Your task to perform on an android device: uninstall "Expedia: Hotels, Flights & Car" Image 0: 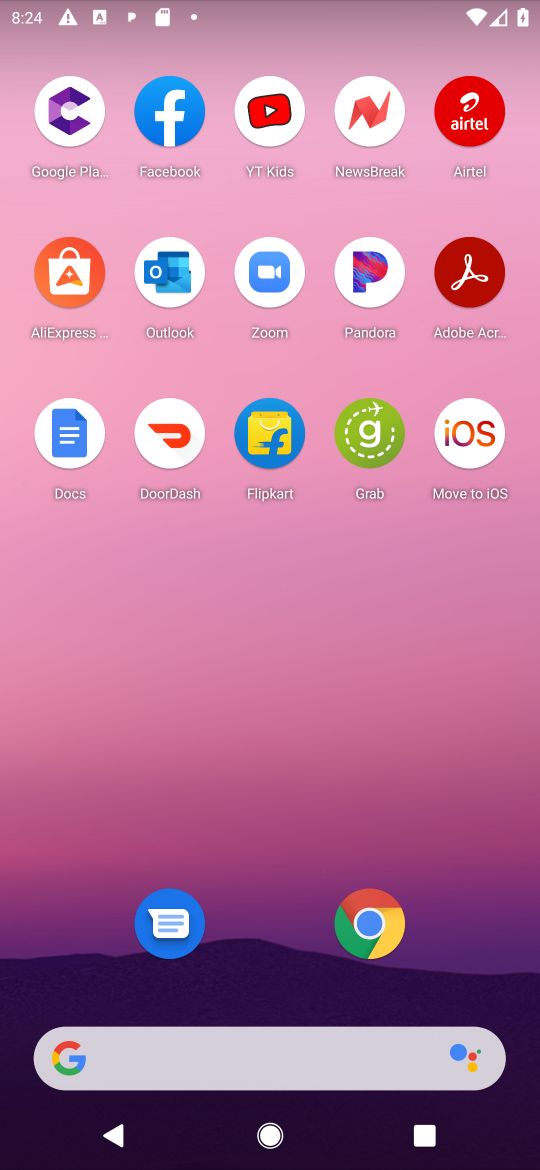
Step 0: press home button
Your task to perform on an android device: uninstall "Expedia: Hotels, Flights & Car" Image 1: 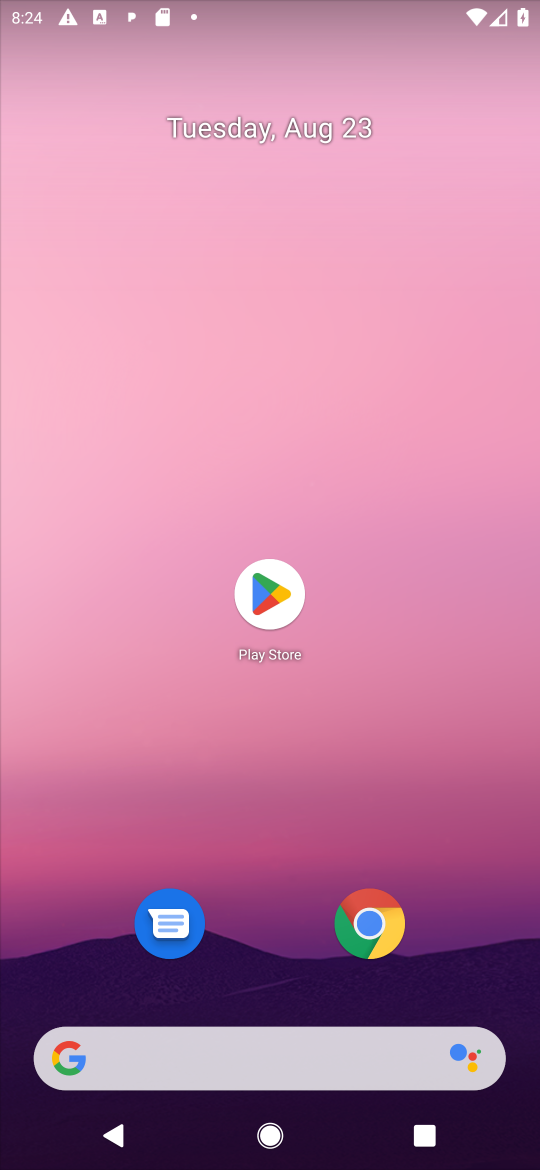
Step 1: click (264, 594)
Your task to perform on an android device: uninstall "Expedia: Hotels, Flights & Car" Image 2: 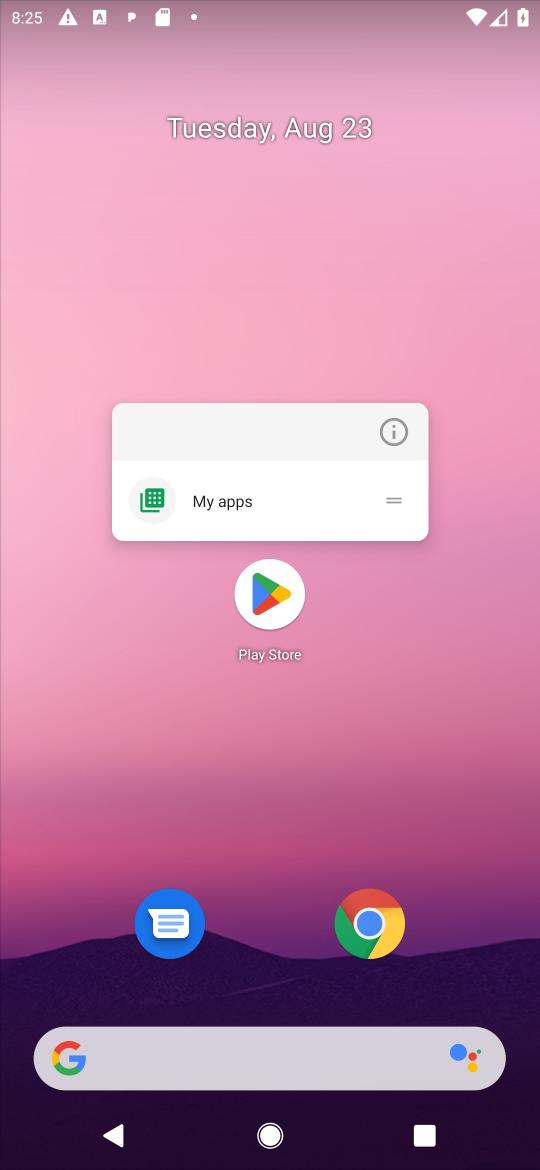
Step 2: click (270, 596)
Your task to perform on an android device: uninstall "Expedia: Hotels, Flights & Car" Image 3: 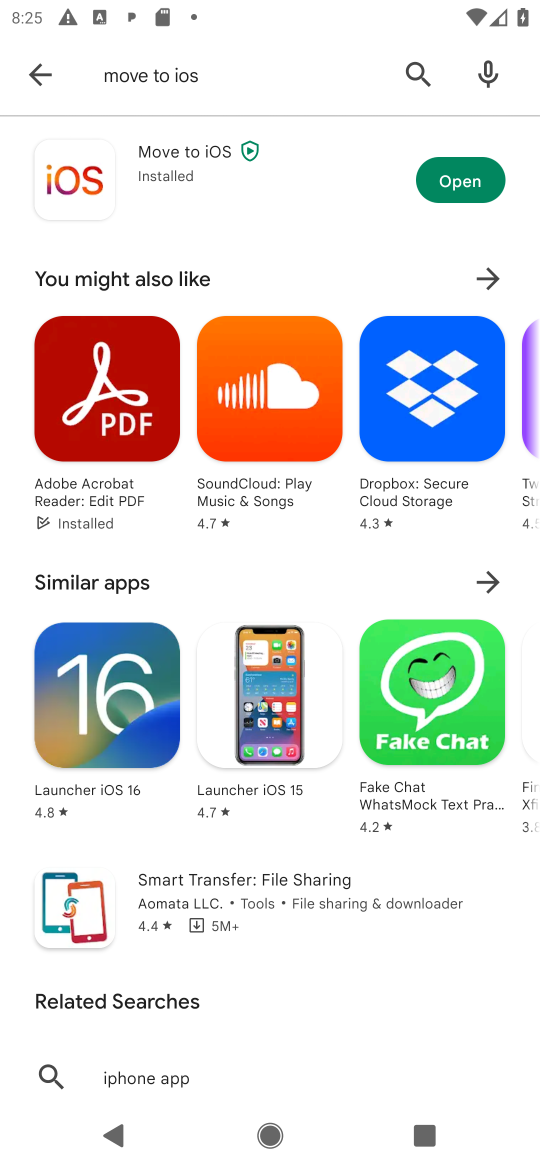
Step 3: click (414, 66)
Your task to perform on an android device: uninstall "Expedia: Hotels, Flights & Car" Image 4: 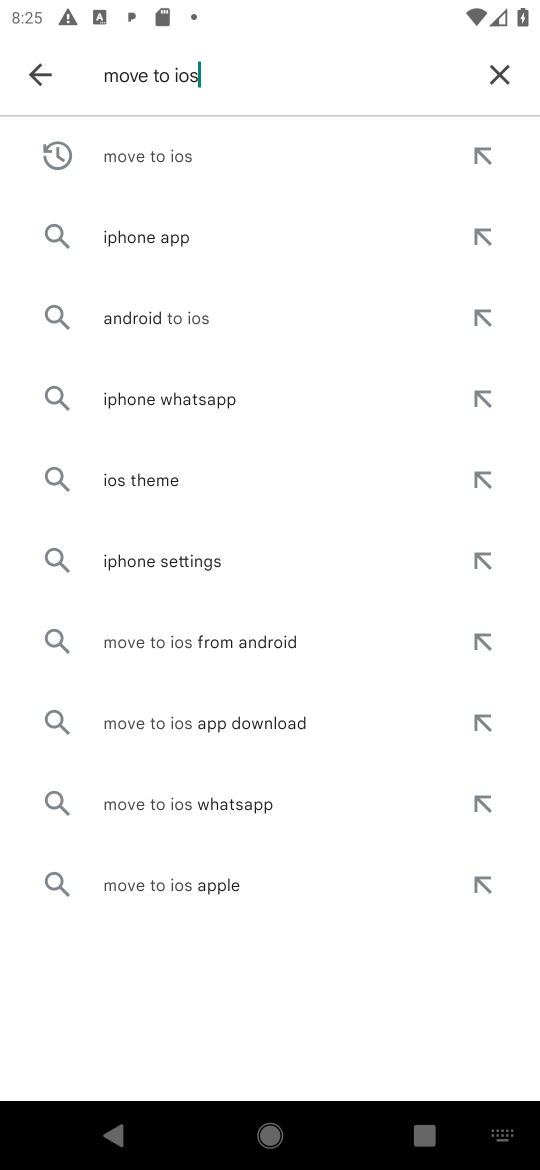
Step 4: click (500, 72)
Your task to perform on an android device: uninstall "Expedia: Hotels, Flights & Car" Image 5: 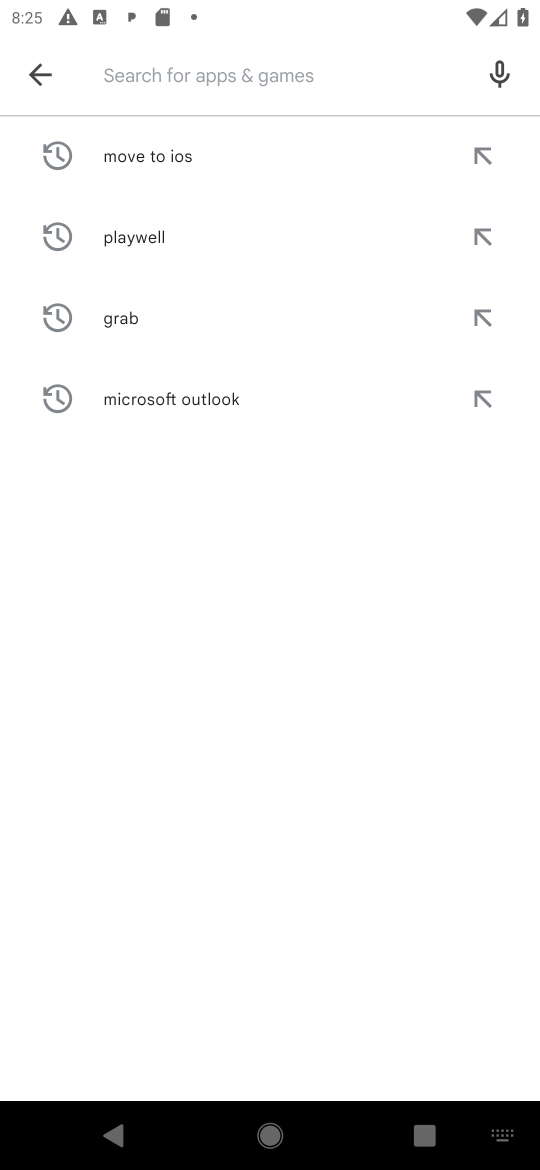
Step 5: type "Expedia: Hotels, Flights & Car"
Your task to perform on an android device: uninstall "Expedia: Hotels, Flights & Car" Image 6: 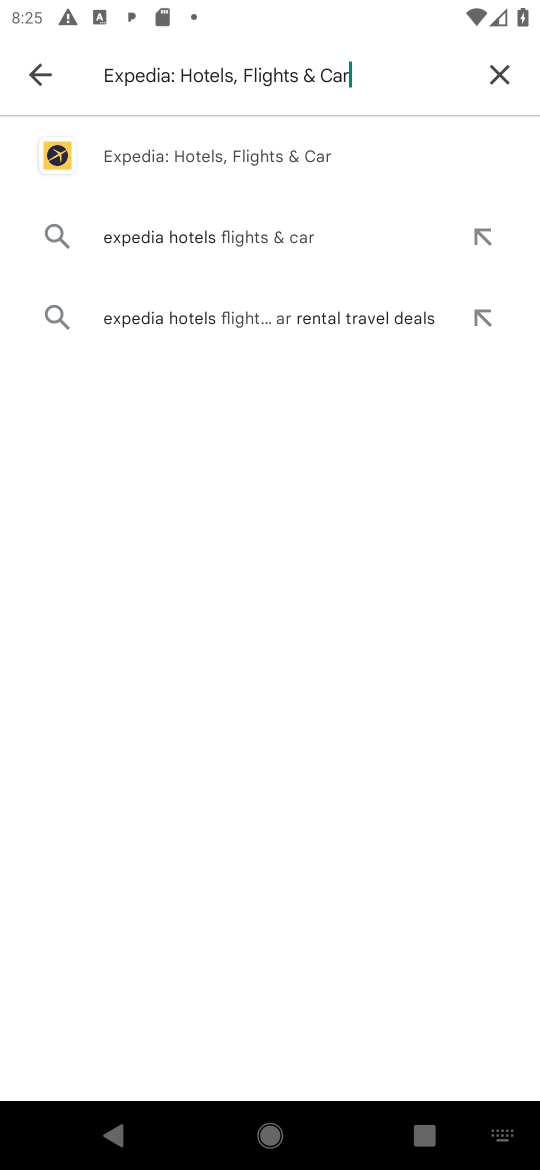
Step 6: click (182, 156)
Your task to perform on an android device: uninstall "Expedia: Hotels, Flights & Car" Image 7: 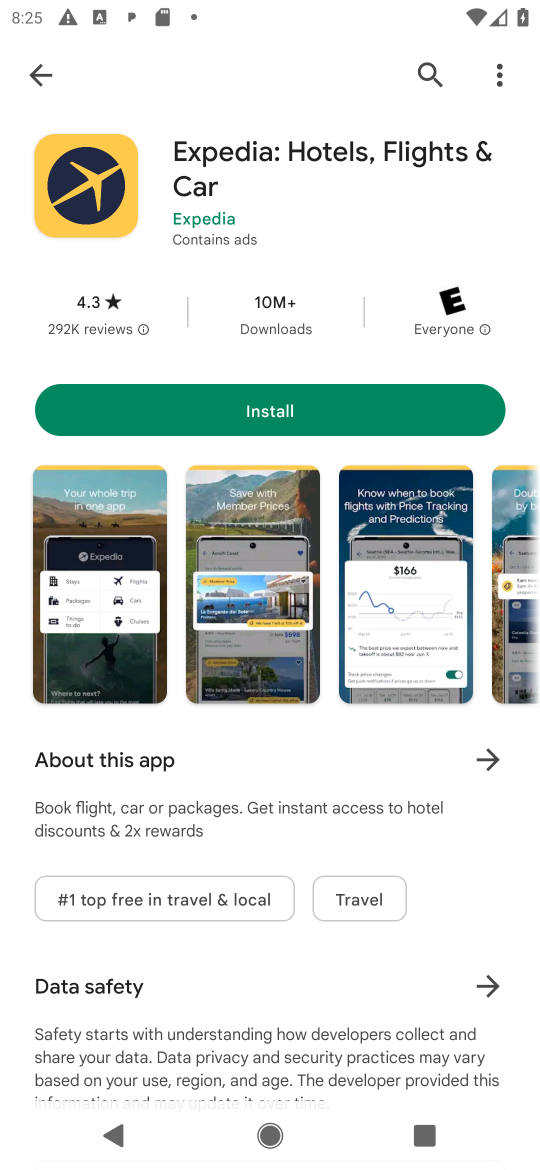
Step 7: task complete